Your task to perform on an android device: Open sound settings Image 0: 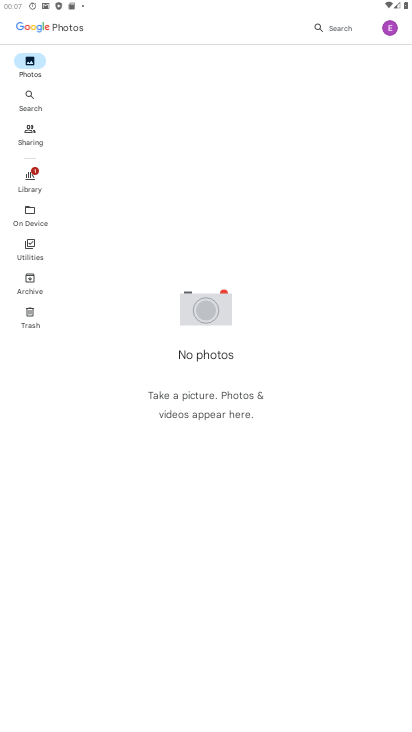
Step 0: press home button
Your task to perform on an android device: Open sound settings Image 1: 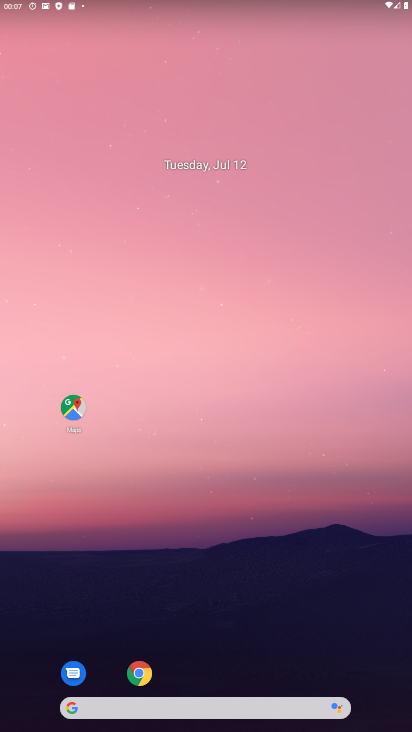
Step 1: drag from (267, 588) to (239, 168)
Your task to perform on an android device: Open sound settings Image 2: 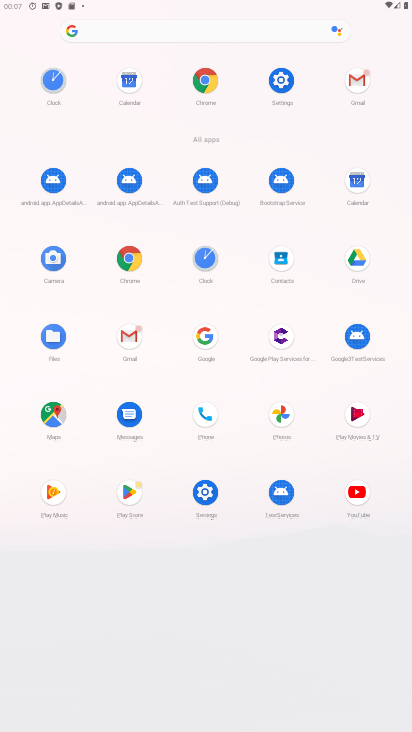
Step 2: click (277, 85)
Your task to perform on an android device: Open sound settings Image 3: 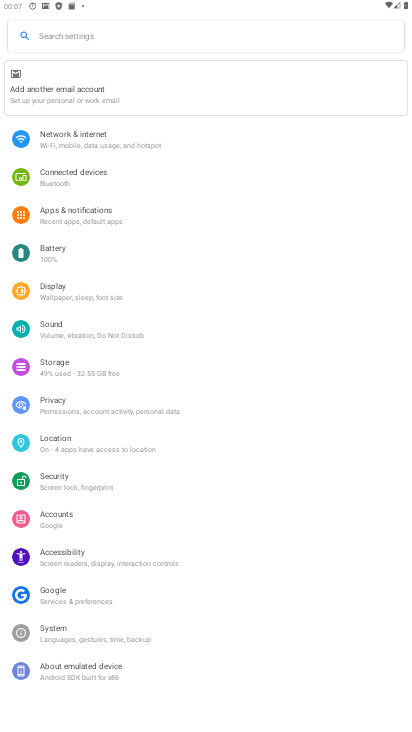
Step 3: click (55, 320)
Your task to perform on an android device: Open sound settings Image 4: 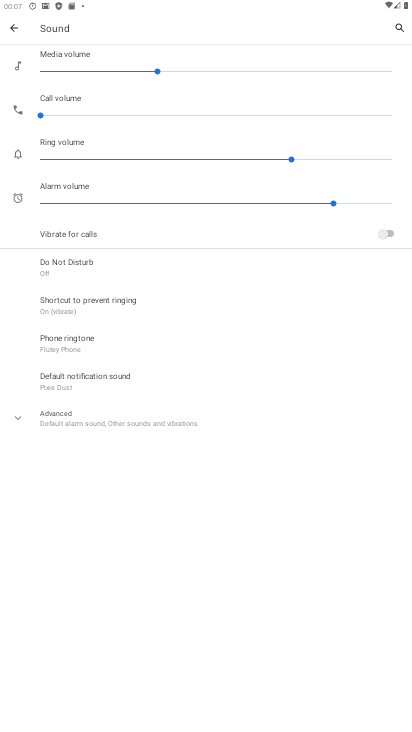
Step 4: task complete